Your task to perform on an android device: allow notifications from all sites in the chrome app Image 0: 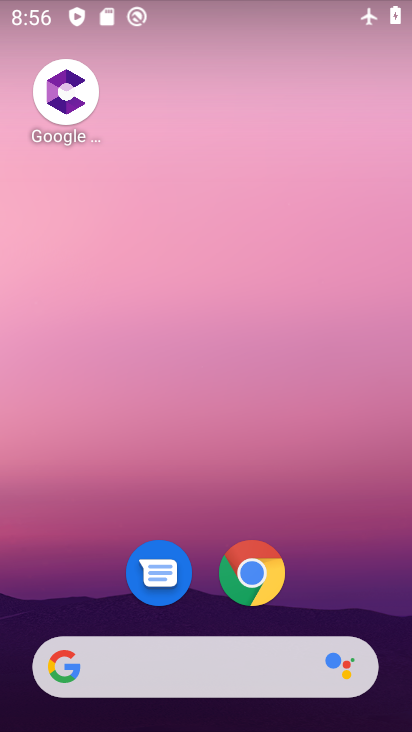
Step 0: click (255, 569)
Your task to perform on an android device: allow notifications from all sites in the chrome app Image 1: 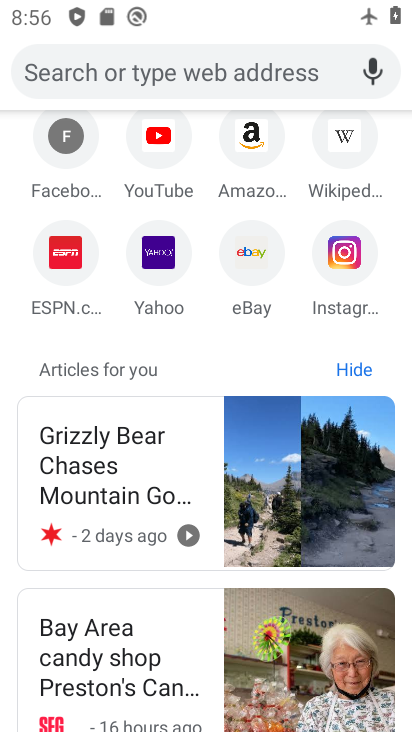
Step 1: press home button
Your task to perform on an android device: allow notifications from all sites in the chrome app Image 2: 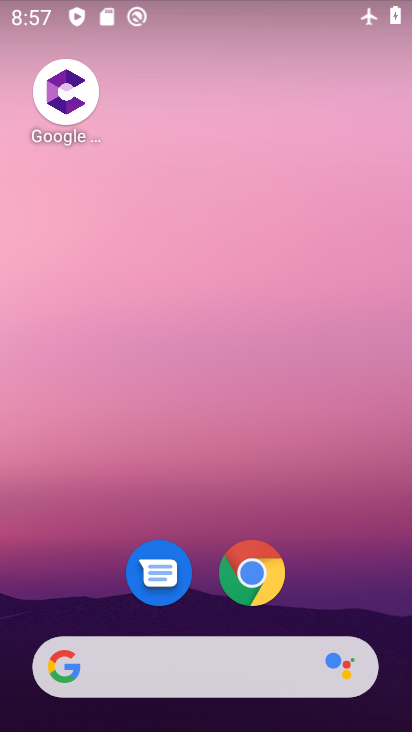
Step 2: click (240, 570)
Your task to perform on an android device: allow notifications from all sites in the chrome app Image 3: 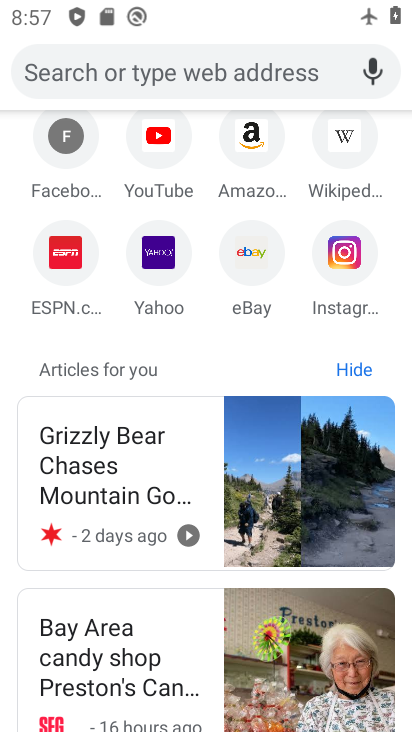
Step 3: task complete